Your task to perform on an android device: check data usage Image 0: 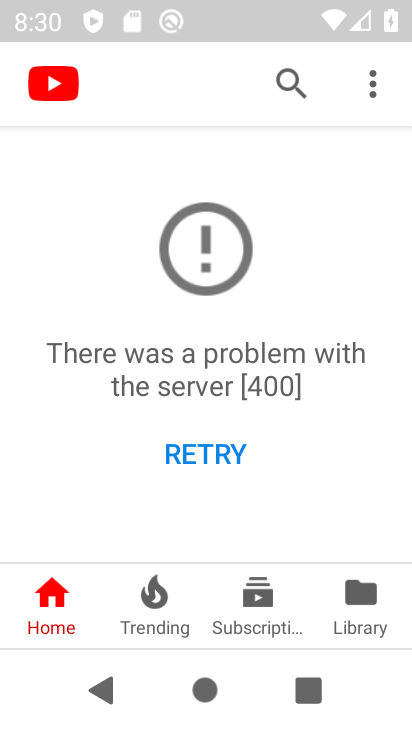
Step 0: press home button
Your task to perform on an android device: check data usage Image 1: 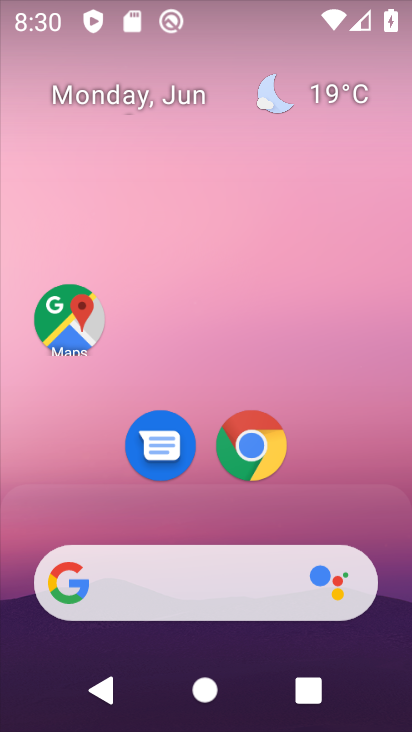
Step 1: drag from (107, 567) to (196, 50)
Your task to perform on an android device: check data usage Image 2: 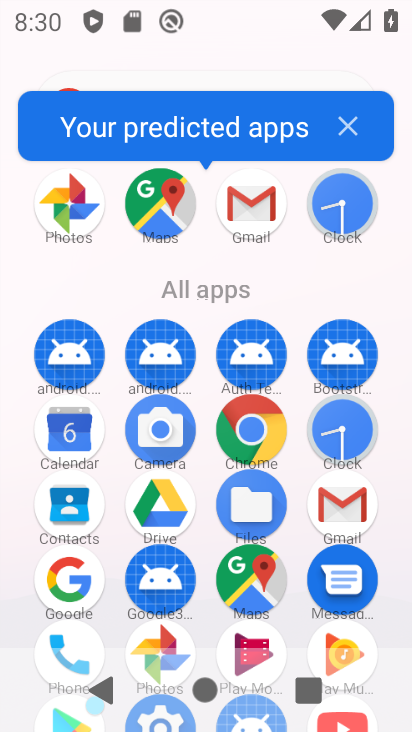
Step 2: drag from (213, 602) to (284, 292)
Your task to perform on an android device: check data usage Image 3: 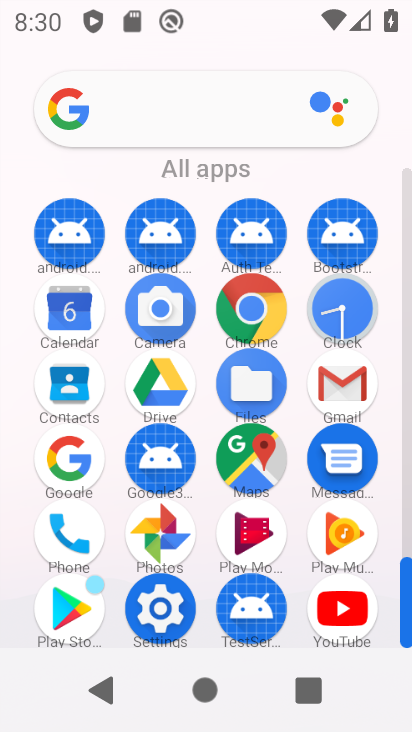
Step 3: click (154, 617)
Your task to perform on an android device: check data usage Image 4: 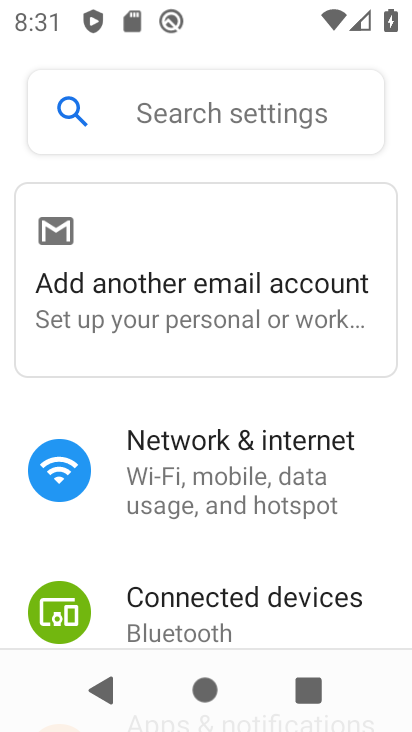
Step 4: drag from (179, 648) to (230, 455)
Your task to perform on an android device: check data usage Image 5: 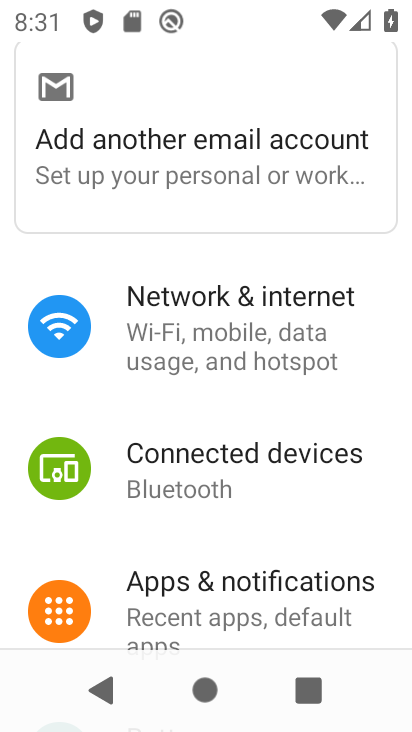
Step 5: click (246, 363)
Your task to perform on an android device: check data usage Image 6: 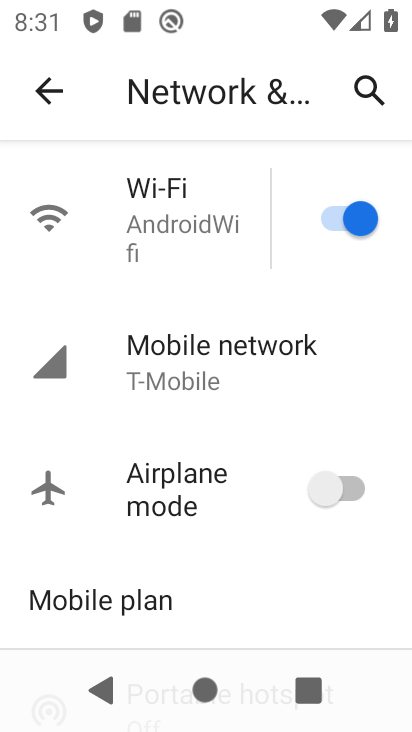
Step 6: click (215, 396)
Your task to perform on an android device: check data usage Image 7: 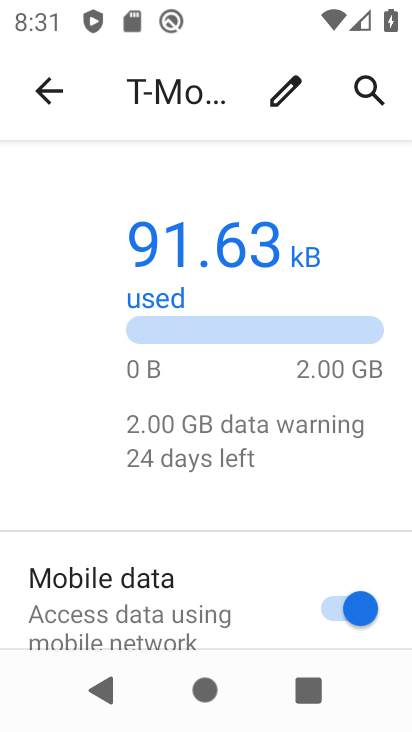
Step 7: drag from (239, 599) to (336, 225)
Your task to perform on an android device: check data usage Image 8: 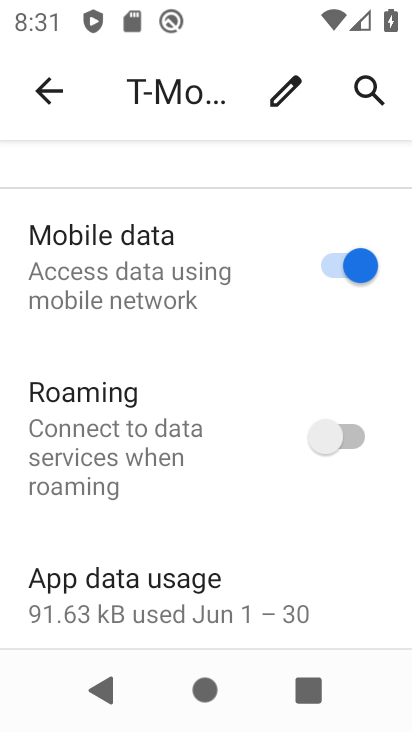
Step 8: drag from (146, 555) to (197, 367)
Your task to perform on an android device: check data usage Image 9: 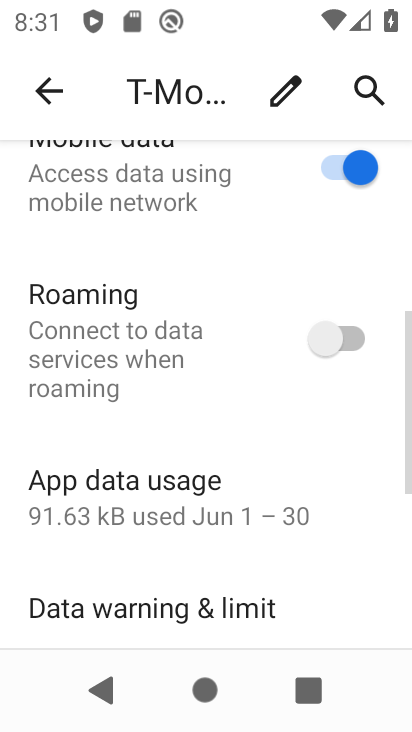
Step 9: click (161, 514)
Your task to perform on an android device: check data usage Image 10: 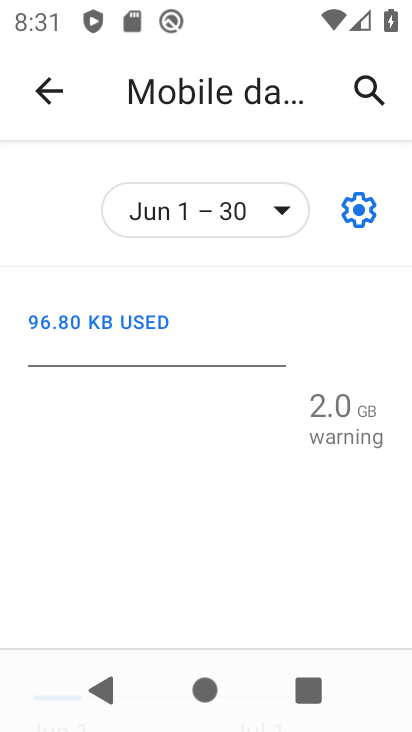
Step 10: task complete